Your task to perform on an android device: Go to wifi settings Image 0: 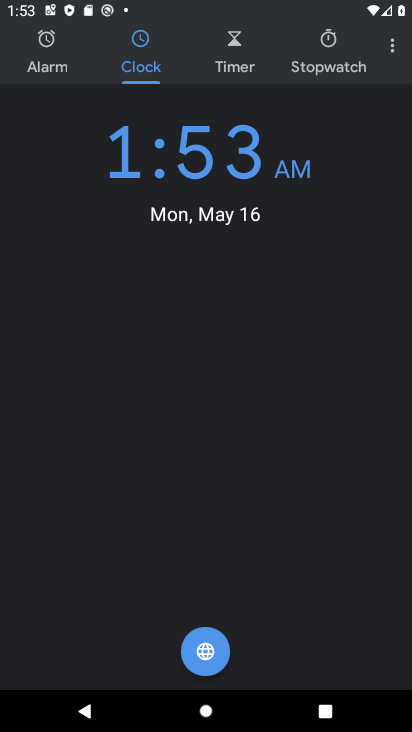
Step 0: press back button
Your task to perform on an android device: Go to wifi settings Image 1: 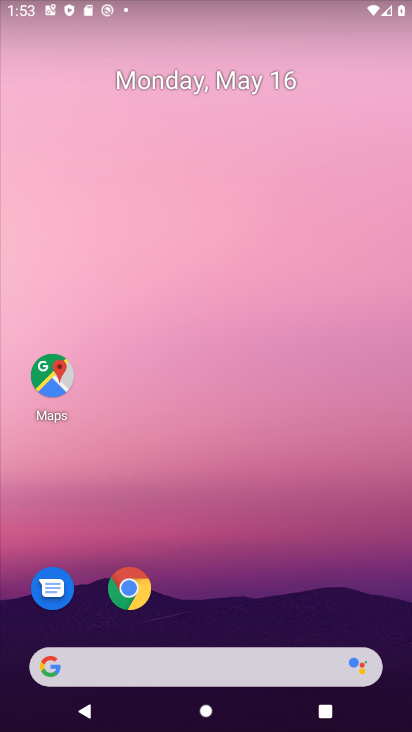
Step 1: drag from (268, 559) to (184, 183)
Your task to perform on an android device: Go to wifi settings Image 2: 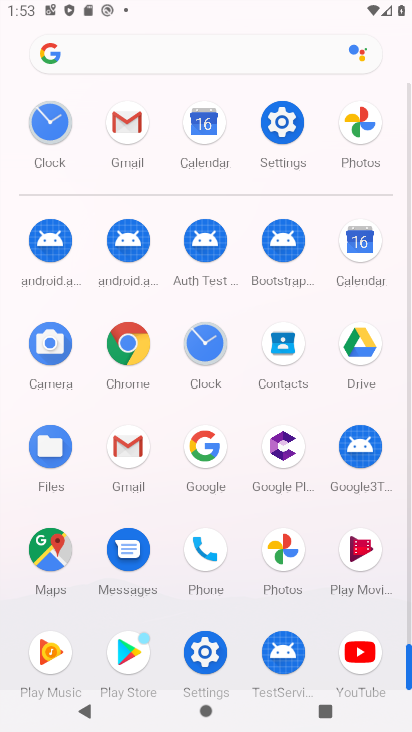
Step 2: click (280, 124)
Your task to perform on an android device: Go to wifi settings Image 3: 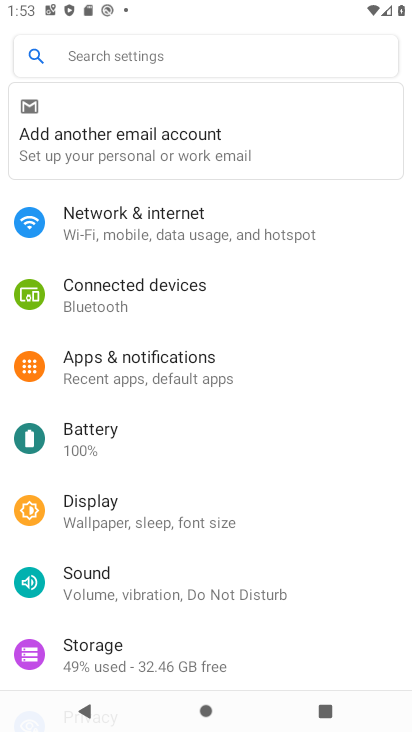
Step 3: click (191, 228)
Your task to perform on an android device: Go to wifi settings Image 4: 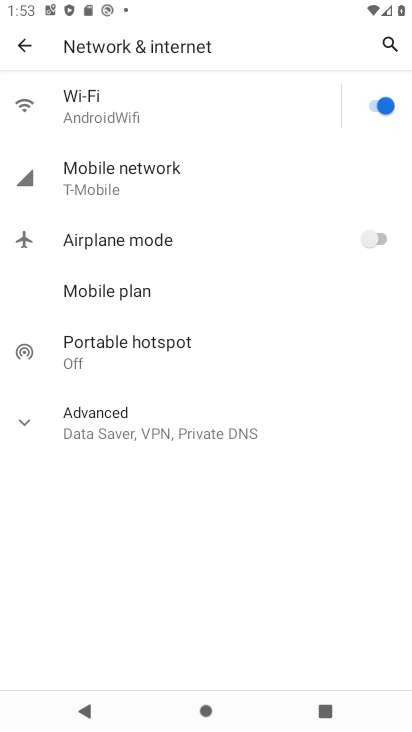
Step 4: click (103, 115)
Your task to perform on an android device: Go to wifi settings Image 5: 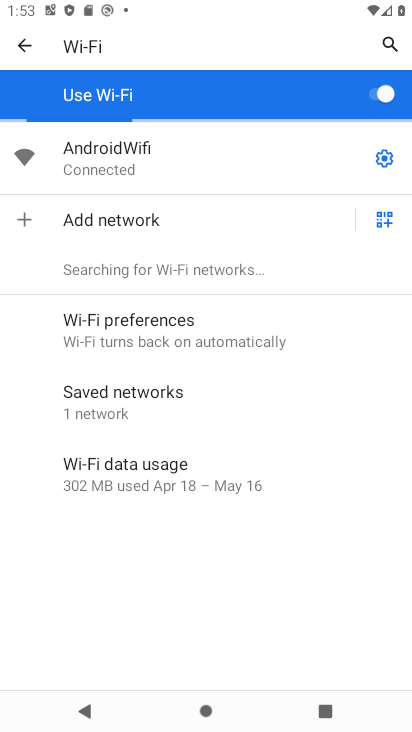
Step 5: click (382, 157)
Your task to perform on an android device: Go to wifi settings Image 6: 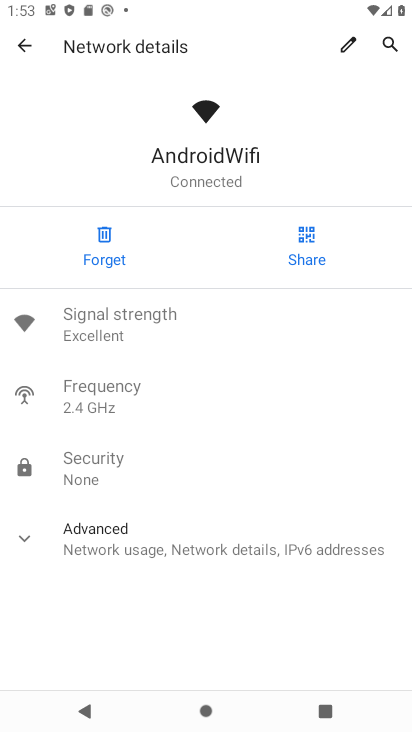
Step 6: task complete